Your task to perform on an android device: What's the weather going to be this weekend? Image 0: 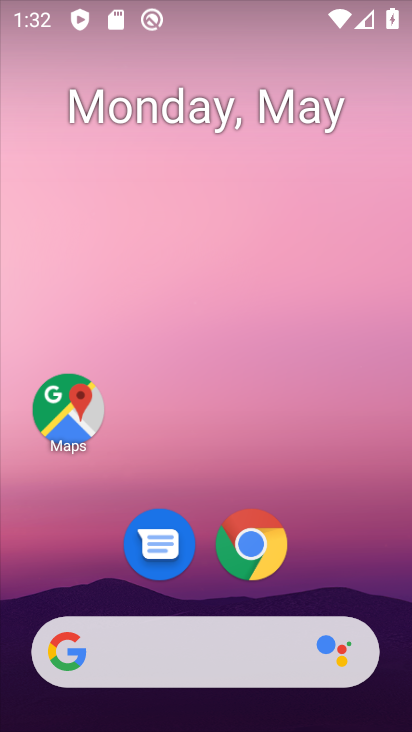
Step 0: click (339, 125)
Your task to perform on an android device: What's the weather going to be this weekend? Image 1: 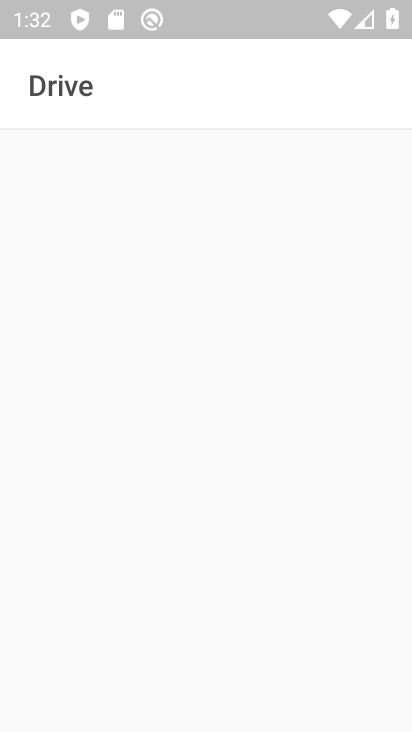
Step 1: press home button
Your task to perform on an android device: What's the weather going to be this weekend? Image 2: 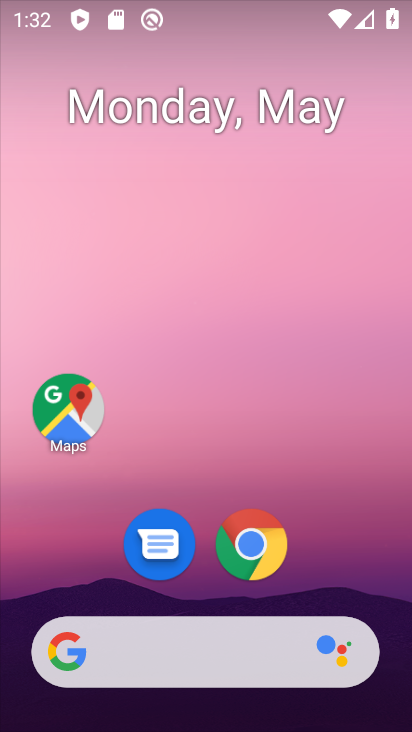
Step 2: drag from (374, 563) to (358, 122)
Your task to perform on an android device: What's the weather going to be this weekend? Image 3: 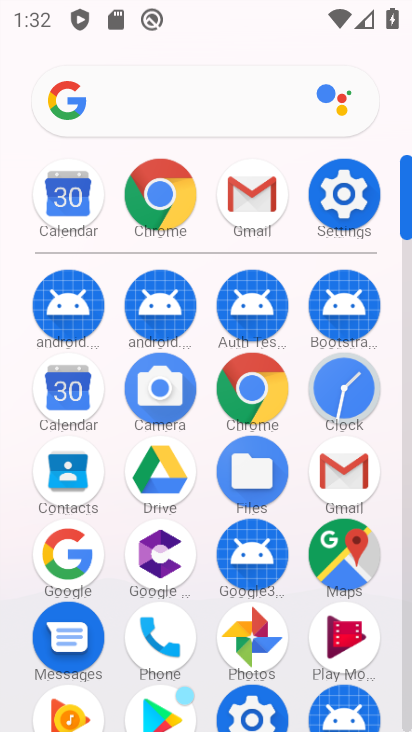
Step 3: click (85, 398)
Your task to perform on an android device: What's the weather going to be this weekend? Image 4: 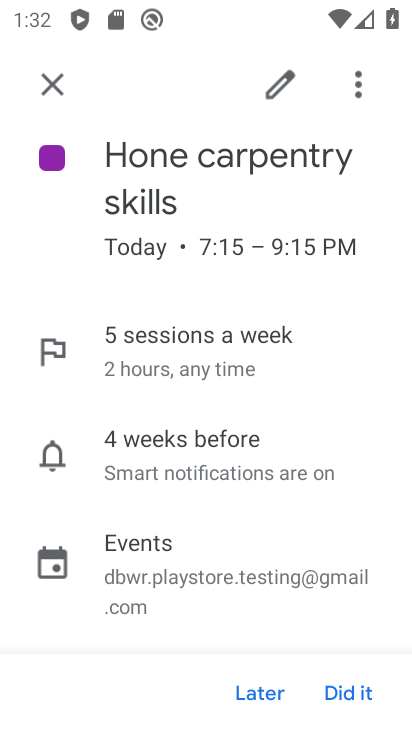
Step 4: press home button
Your task to perform on an android device: What's the weather going to be this weekend? Image 5: 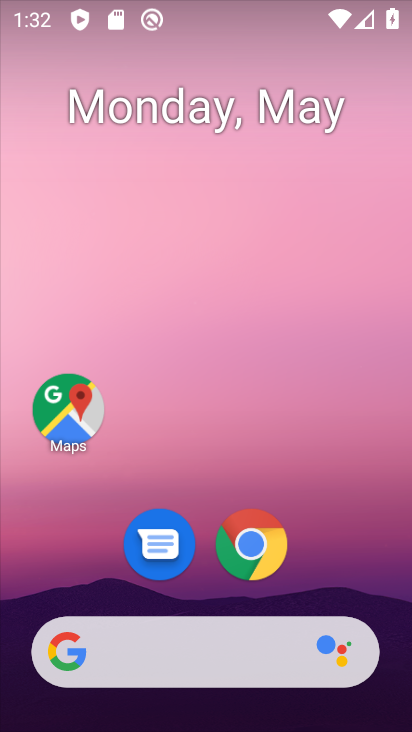
Step 5: click (212, 662)
Your task to perform on an android device: What's the weather going to be this weekend? Image 6: 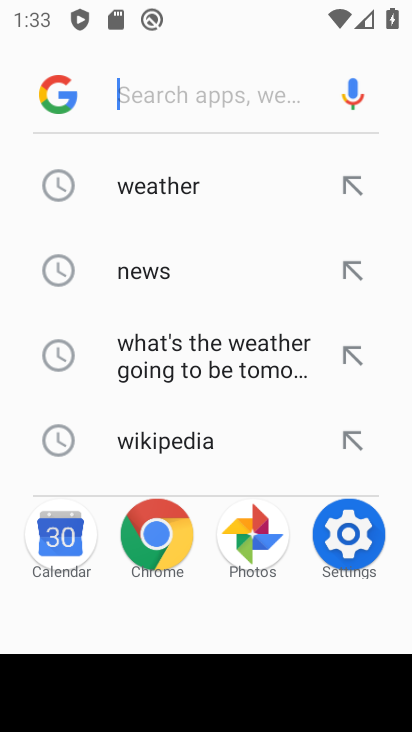
Step 6: click (191, 188)
Your task to perform on an android device: What's the weather going to be this weekend? Image 7: 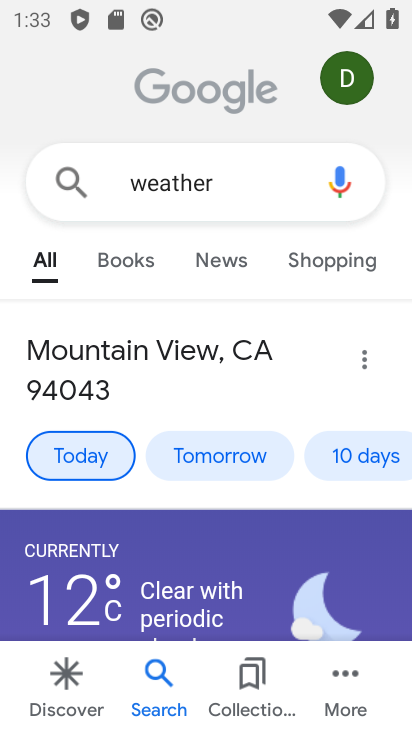
Step 7: click (361, 457)
Your task to perform on an android device: What's the weather going to be this weekend? Image 8: 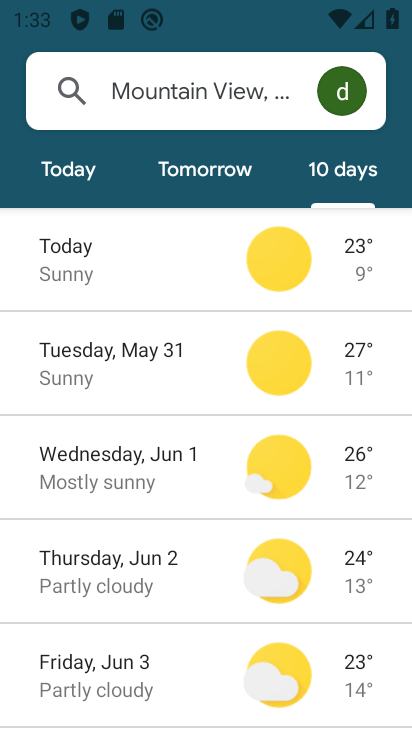
Step 8: task complete